Your task to perform on an android device: delete the emails in spam in the gmail app Image 0: 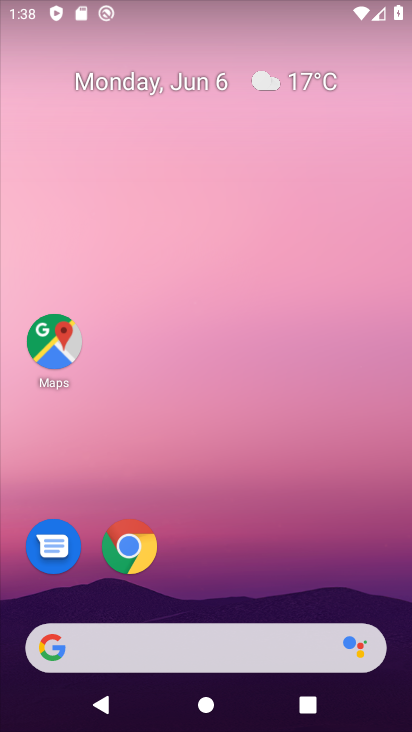
Step 0: drag from (269, 499) to (307, 118)
Your task to perform on an android device: delete the emails in spam in the gmail app Image 1: 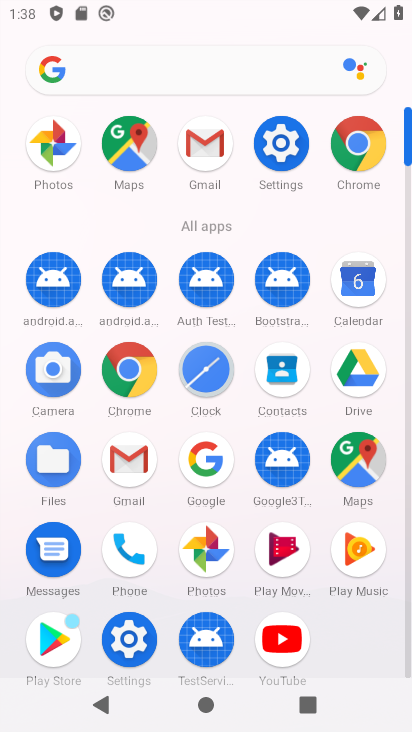
Step 1: click (201, 138)
Your task to perform on an android device: delete the emails in spam in the gmail app Image 2: 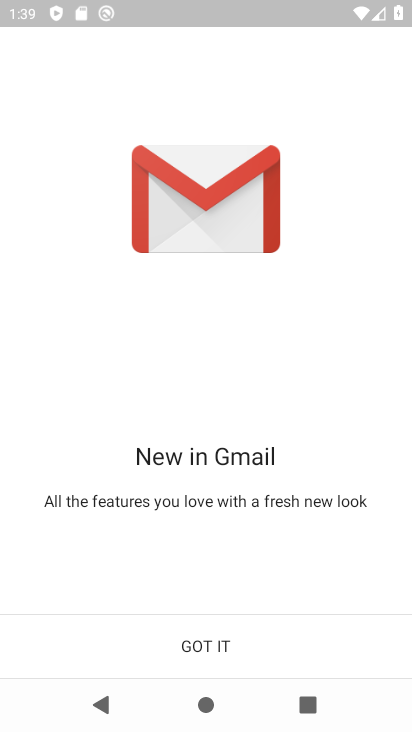
Step 2: click (208, 602)
Your task to perform on an android device: delete the emails in spam in the gmail app Image 3: 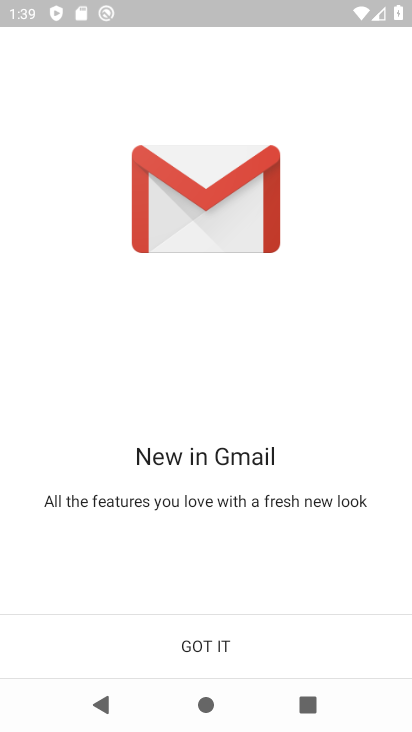
Step 3: click (198, 650)
Your task to perform on an android device: delete the emails in spam in the gmail app Image 4: 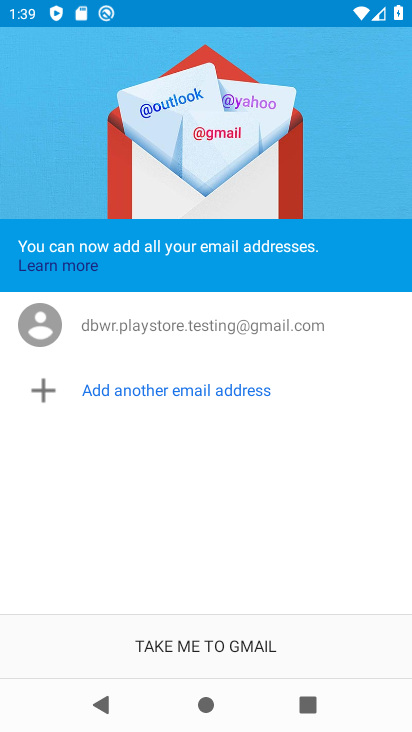
Step 4: click (215, 640)
Your task to perform on an android device: delete the emails in spam in the gmail app Image 5: 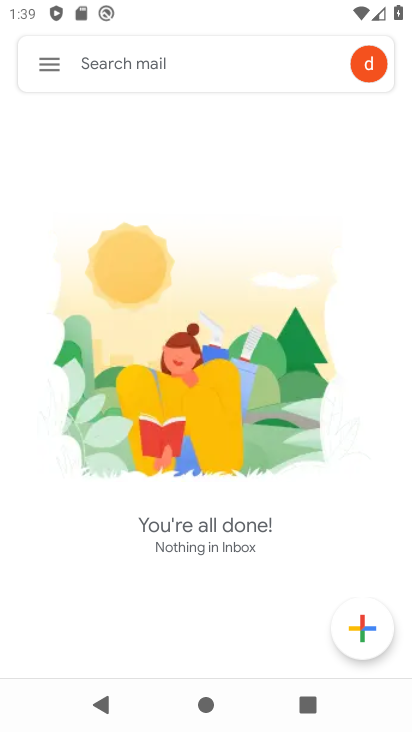
Step 5: click (50, 67)
Your task to perform on an android device: delete the emails in spam in the gmail app Image 6: 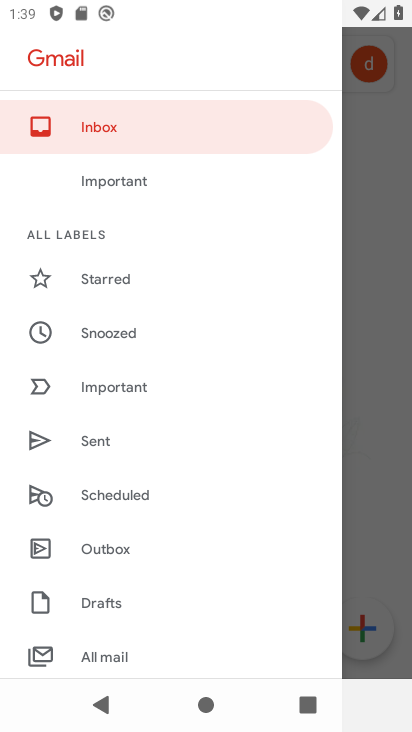
Step 6: drag from (180, 485) to (201, 175)
Your task to perform on an android device: delete the emails in spam in the gmail app Image 7: 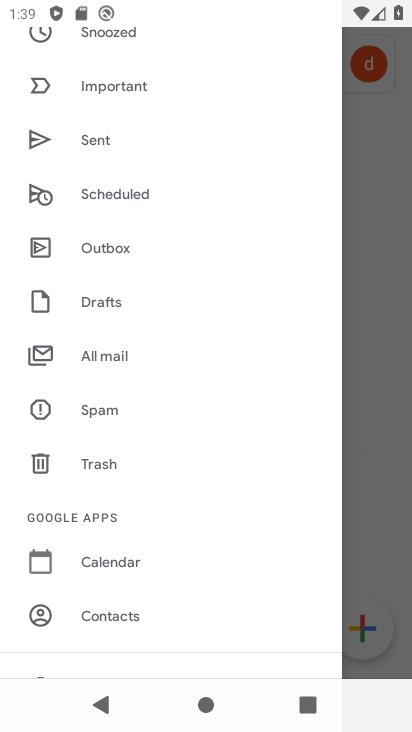
Step 7: click (82, 410)
Your task to perform on an android device: delete the emails in spam in the gmail app Image 8: 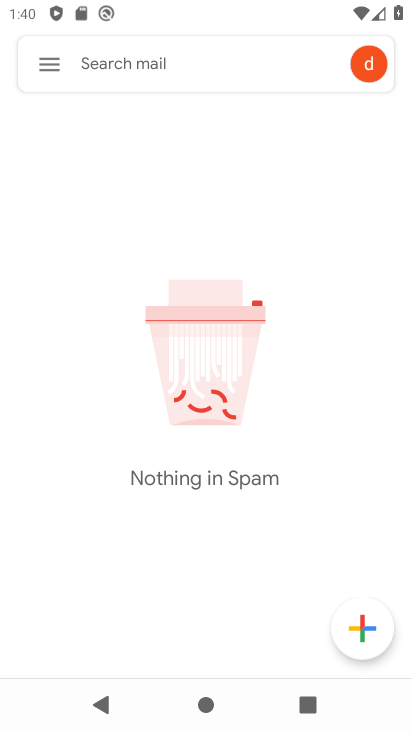
Step 8: task complete